Your task to perform on an android device: What's on my calendar today? Image 0: 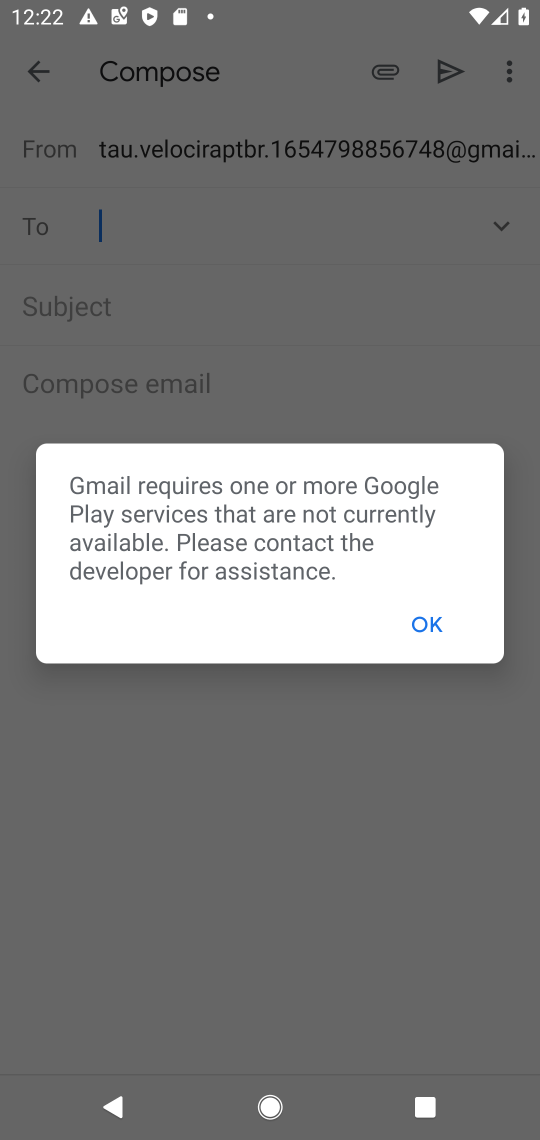
Step 0: press home button
Your task to perform on an android device: What's on my calendar today? Image 1: 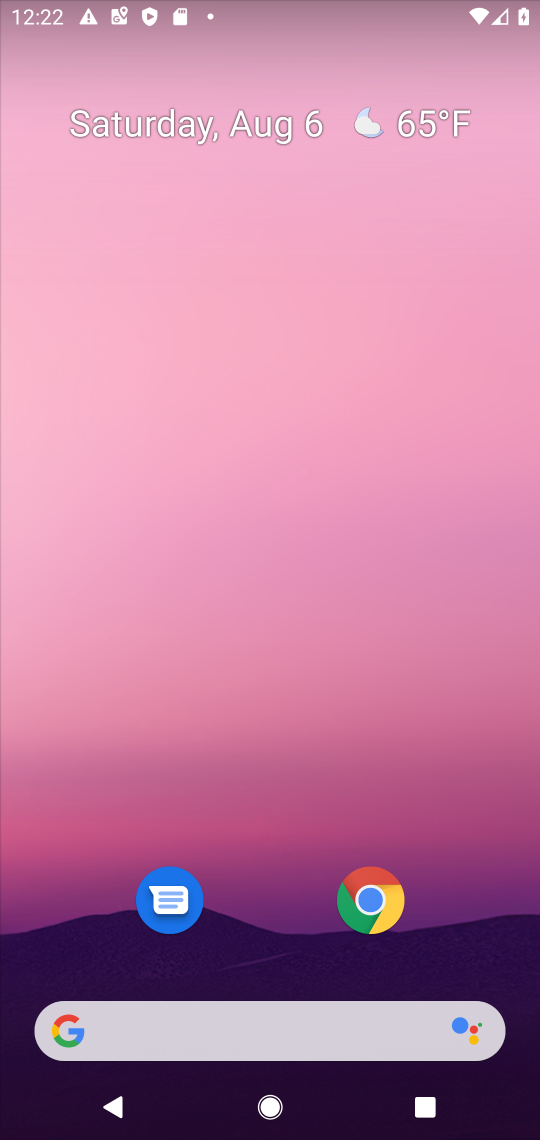
Step 1: drag from (301, 1127) to (290, 161)
Your task to perform on an android device: What's on my calendar today? Image 2: 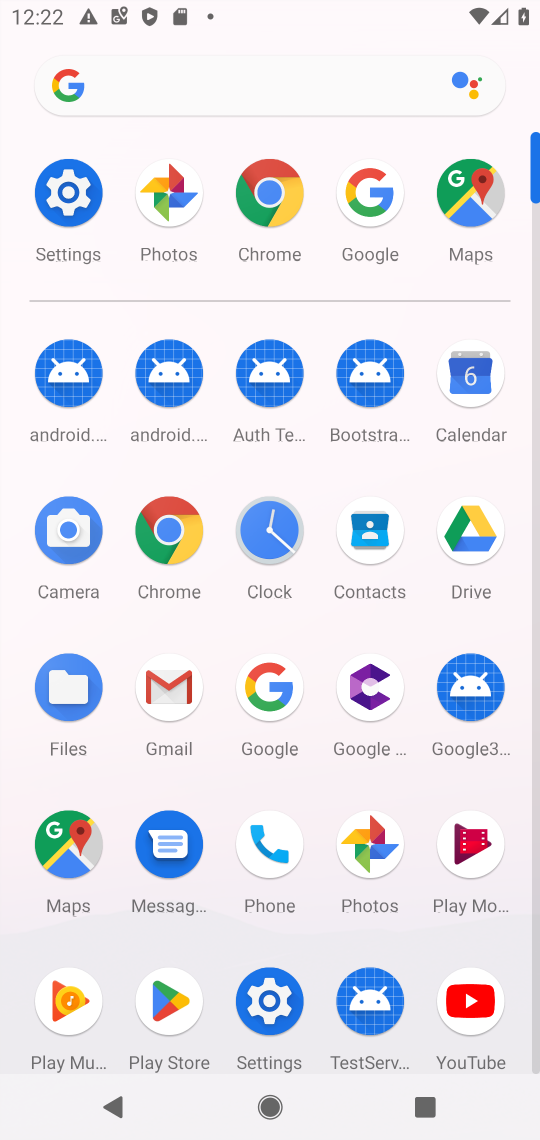
Step 2: click (461, 376)
Your task to perform on an android device: What's on my calendar today? Image 3: 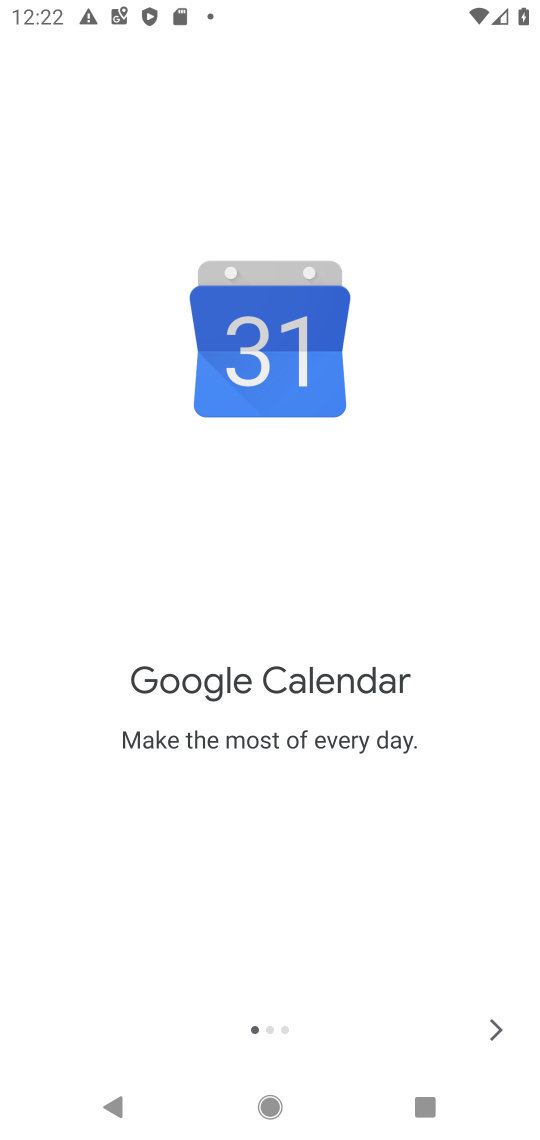
Step 3: click (491, 1019)
Your task to perform on an android device: What's on my calendar today? Image 4: 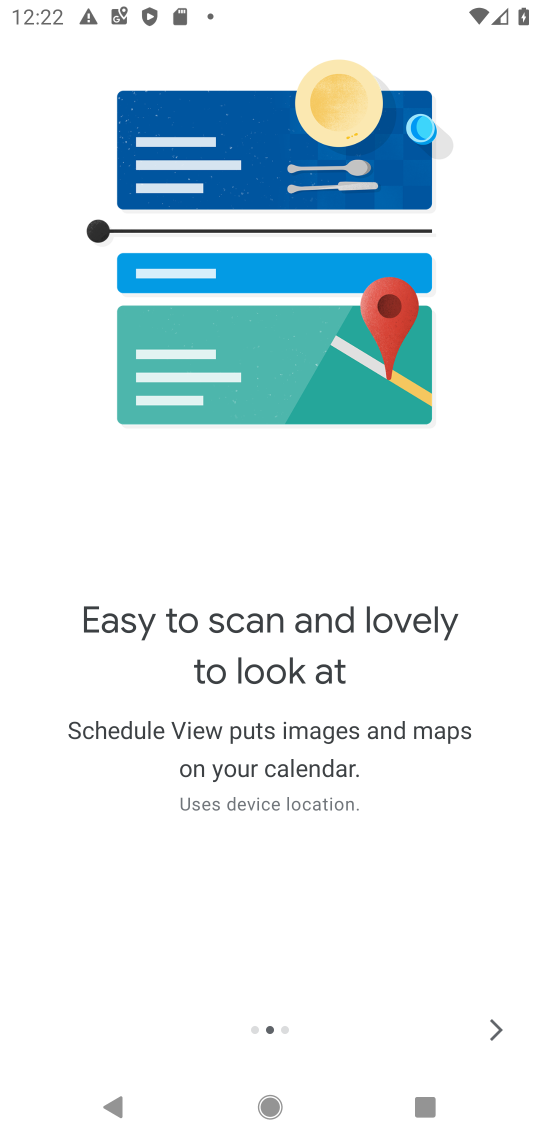
Step 4: click (491, 1019)
Your task to perform on an android device: What's on my calendar today? Image 5: 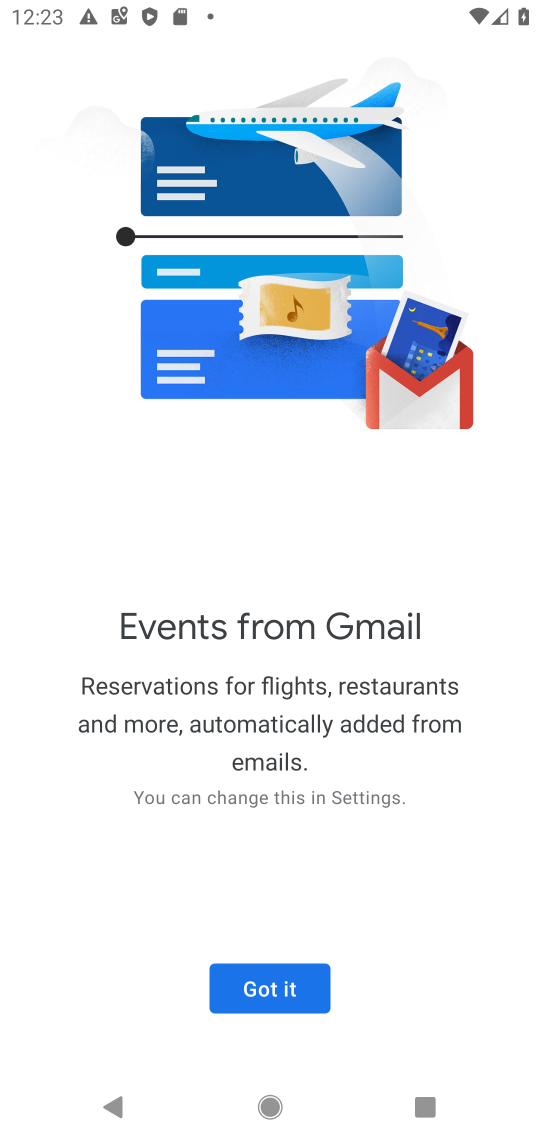
Step 5: click (294, 983)
Your task to perform on an android device: What's on my calendar today? Image 6: 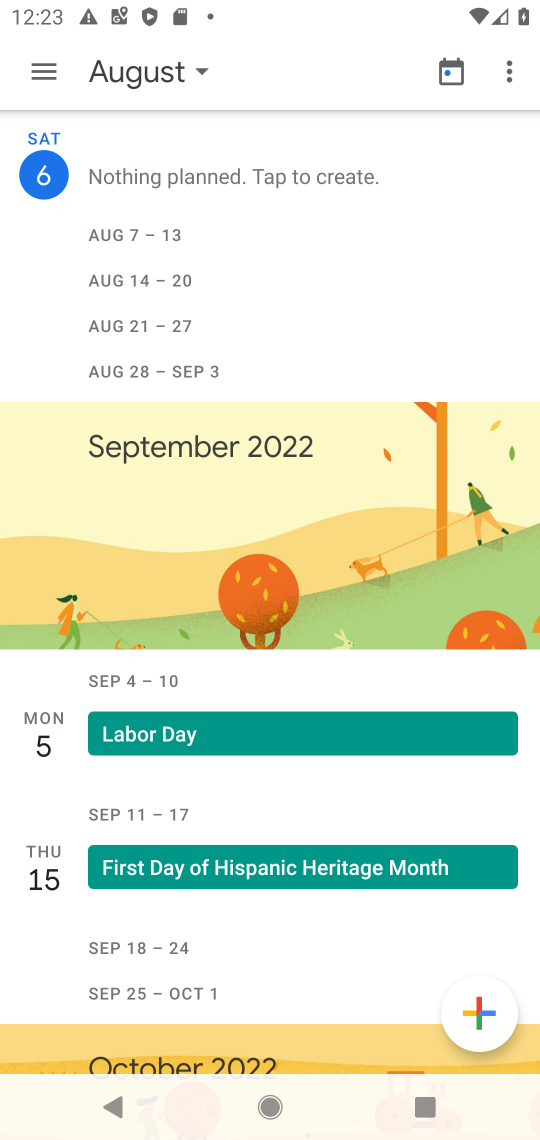
Step 6: click (201, 69)
Your task to perform on an android device: What's on my calendar today? Image 7: 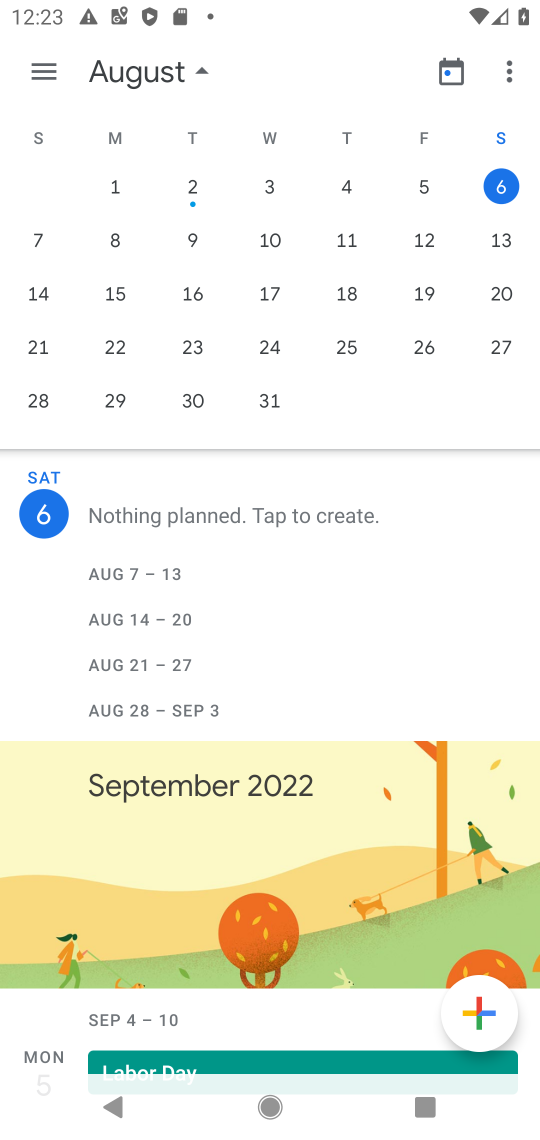
Step 7: click (496, 186)
Your task to perform on an android device: What's on my calendar today? Image 8: 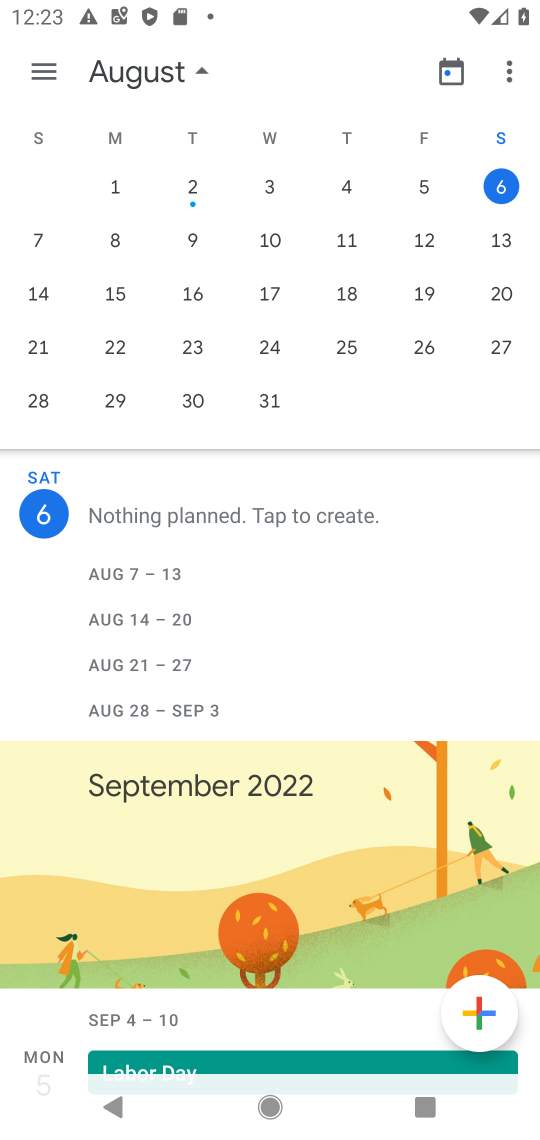
Step 8: task complete